Your task to perform on an android device: add a contact Image 0: 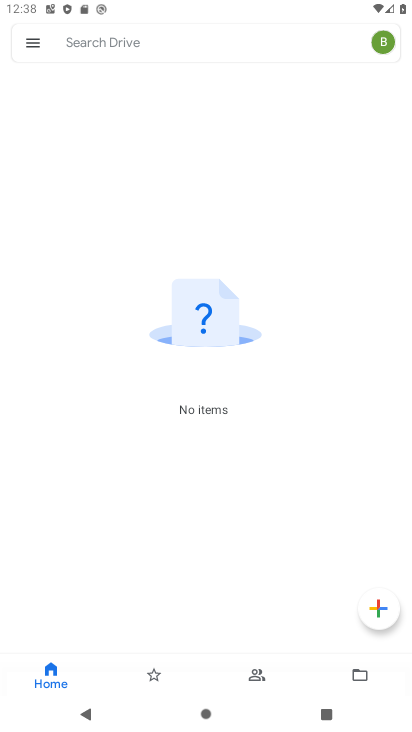
Step 0: press back button
Your task to perform on an android device: add a contact Image 1: 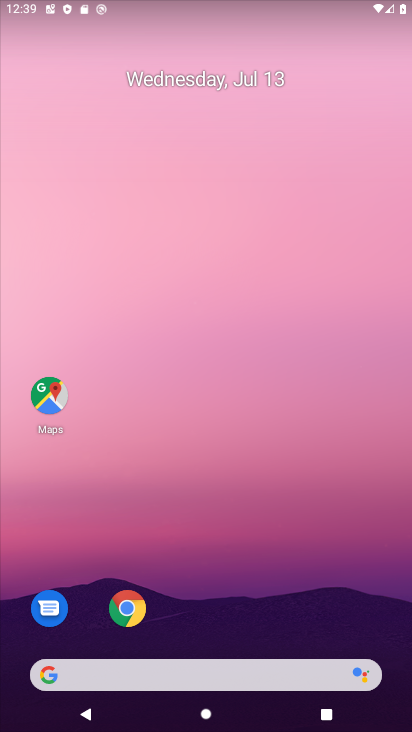
Step 1: drag from (204, 649) to (247, 0)
Your task to perform on an android device: add a contact Image 2: 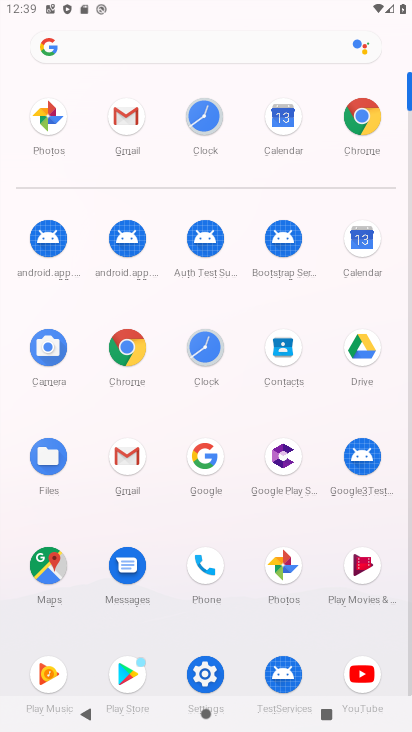
Step 2: click (289, 360)
Your task to perform on an android device: add a contact Image 3: 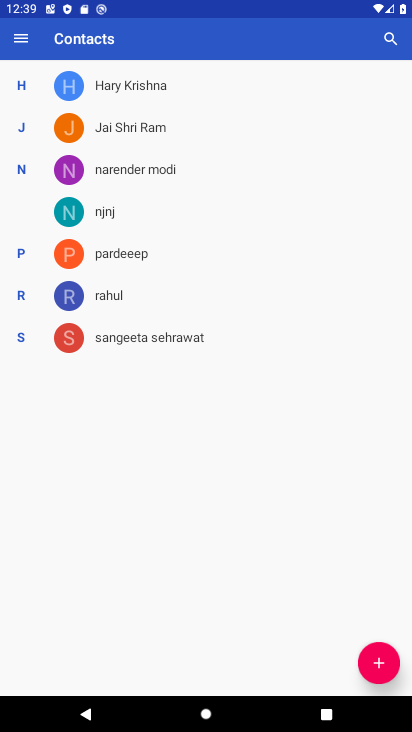
Step 3: click (370, 649)
Your task to perform on an android device: add a contact Image 4: 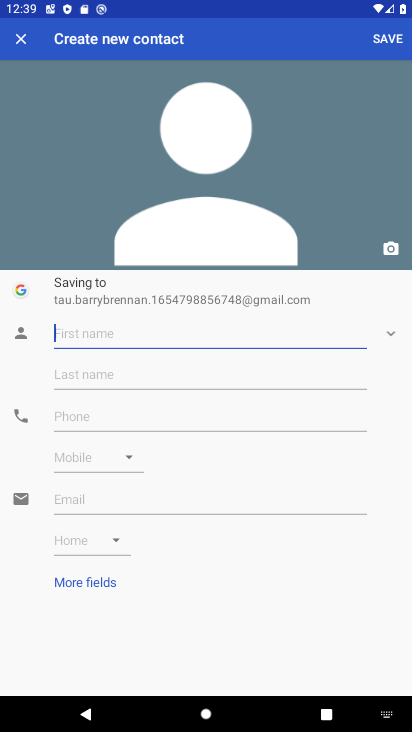
Step 4: type "bgbg"
Your task to perform on an android device: add a contact Image 5: 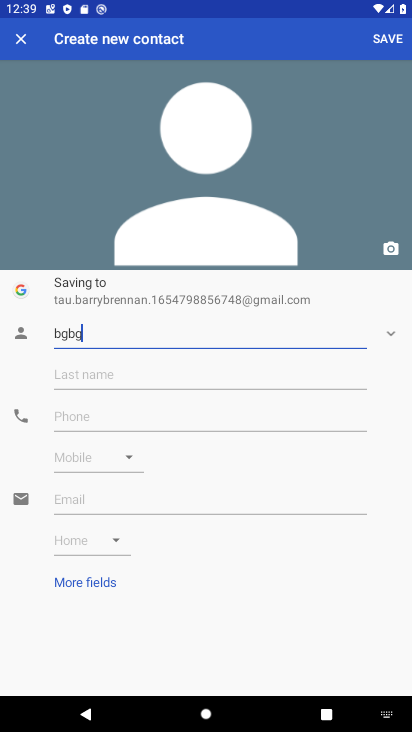
Step 5: click (88, 415)
Your task to perform on an android device: add a contact Image 6: 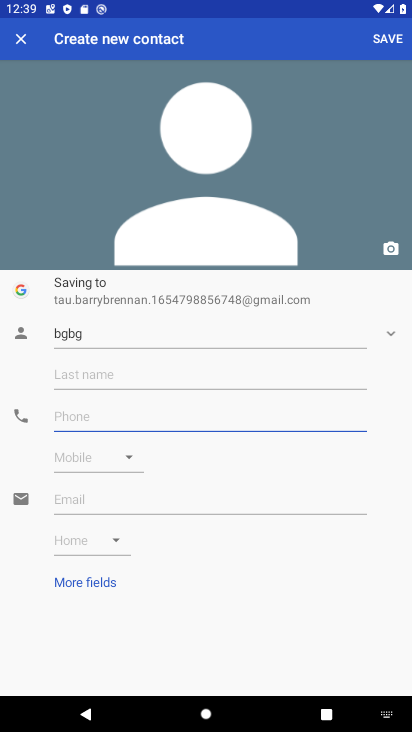
Step 6: type "56767"
Your task to perform on an android device: add a contact Image 7: 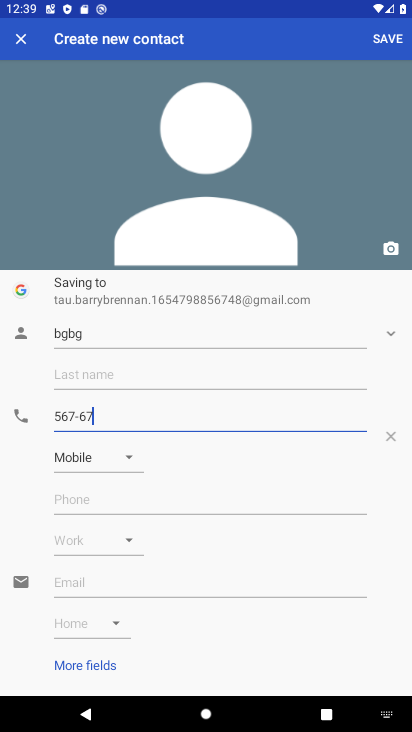
Step 7: click (382, 39)
Your task to perform on an android device: add a contact Image 8: 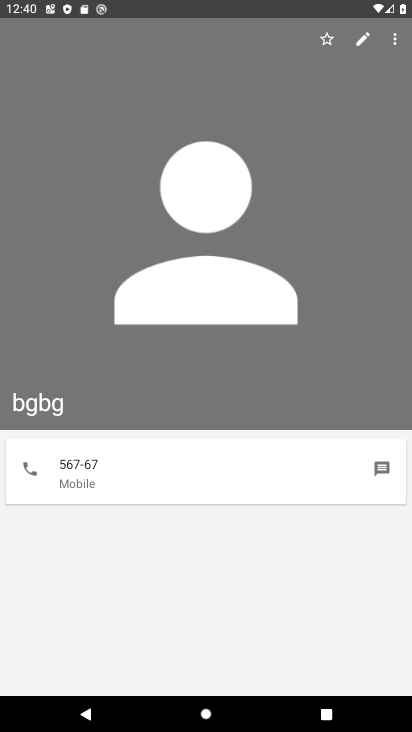
Step 8: task complete